Your task to perform on an android device: remove spam from my inbox in the gmail app Image 0: 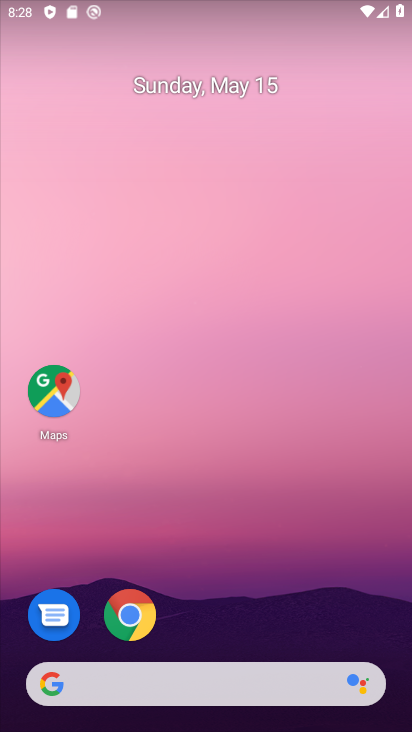
Step 0: drag from (235, 564) to (197, 23)
Your task to perform on an android device: remove spam from my inbox in the gmail app Image 1: 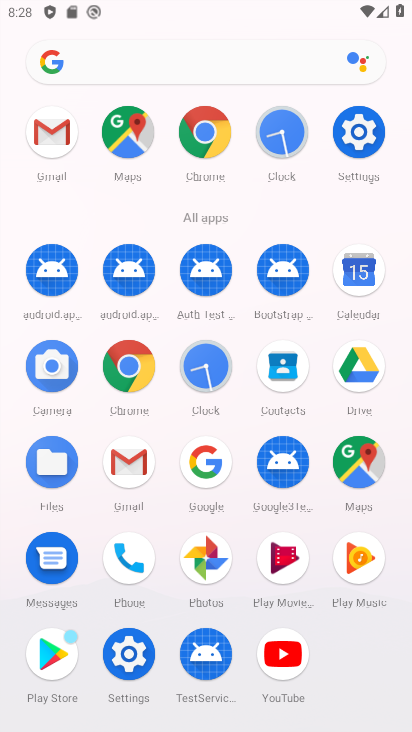
Step 1: drag from (1, 535) to (11, 240)
Your task to perform on an android device: remove spam from my inbox in the gmail app Image 2: 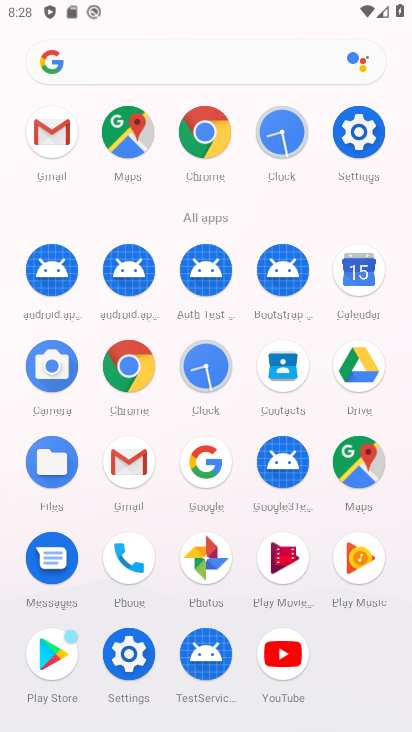
Step 2: click (126, 455)
Your task to perform on an android device: remove spam from my inbox in the gmail app Image 3: 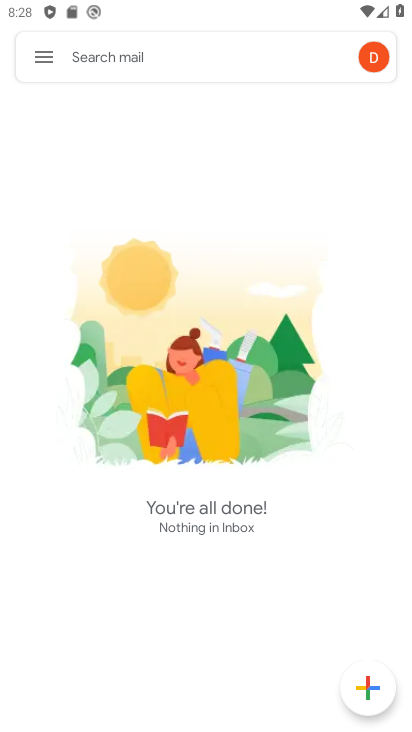
Step 3: click (41, 54)
Your task to perform on an android device: remove spam from my inbox in the gmail app Image 4: 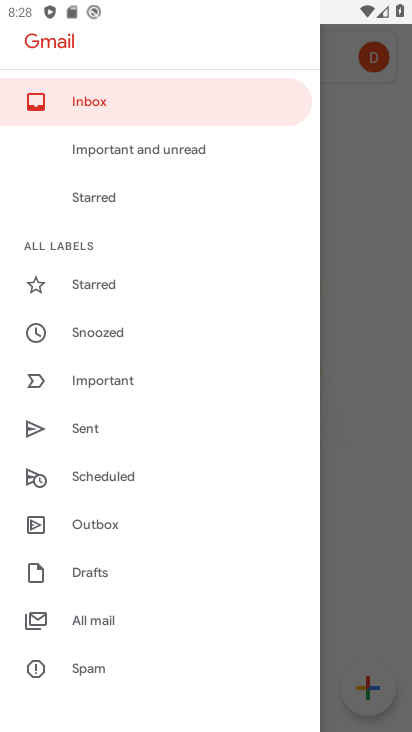
Step 4: drag from (182, 285) to (182, 136)
Your task to perform on an android device: remove spam from my inbox in the gmail app Image 5: 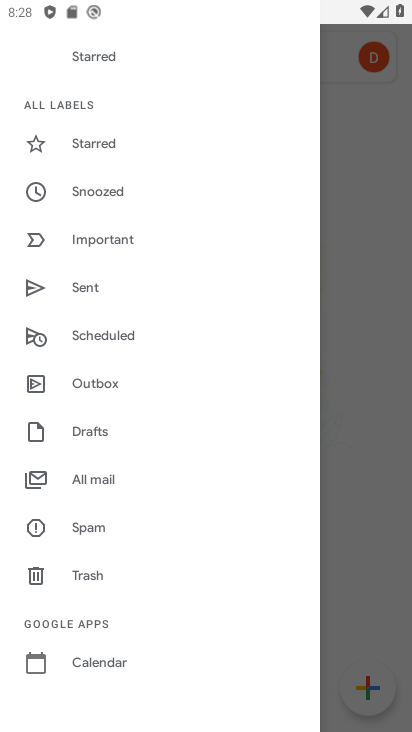
Step 5: click (99, 529)
Your task to perform on an android device: remove spam from my inbox in the gmail app Image 6: 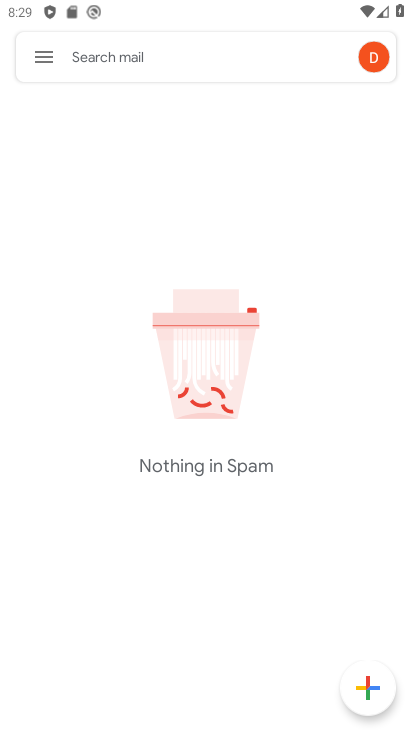
Step 6: task complete